Your task to perform on an android device: turn on wifi Image 0: 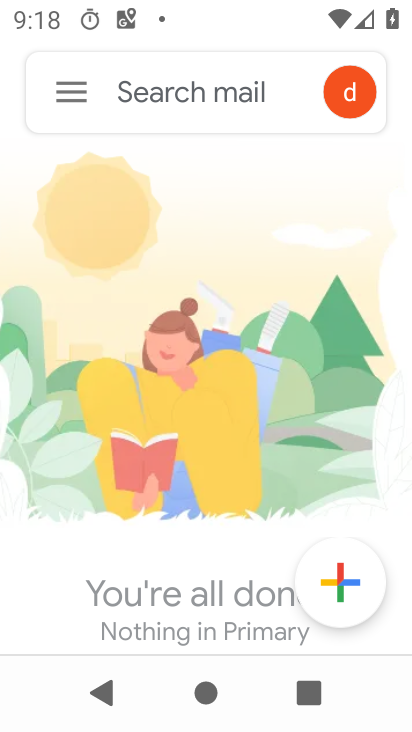
Step 0: press home button
Your task to perform on an android device: turn on wifi Image 1: 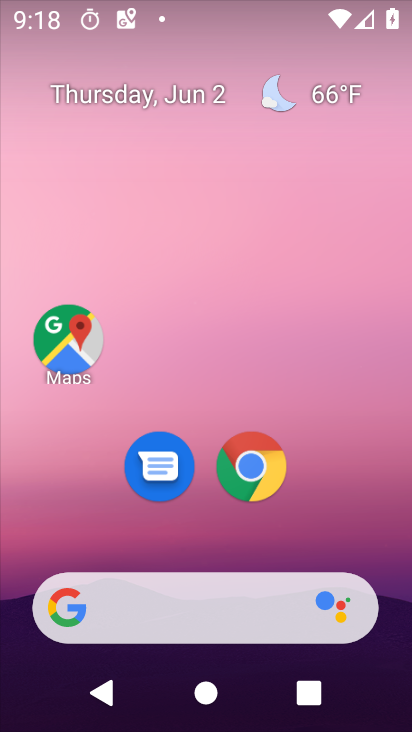
Step 1: task complete